Your task to perform on an android device: set default search engine in the chrome app Image 0: 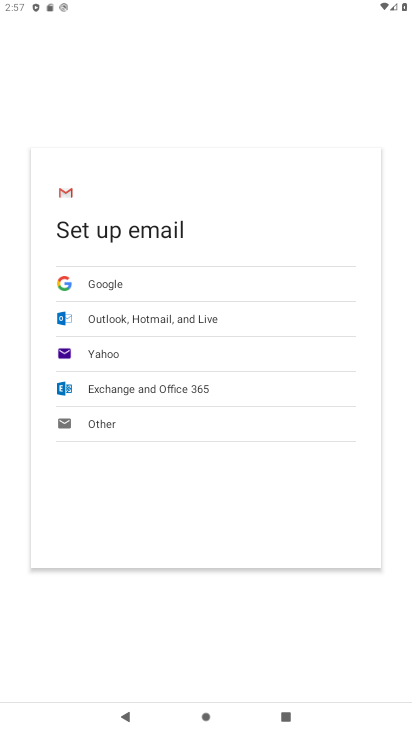
Step 0: press home button
Your task to perform on an android device: set default search engine in the chrome app Image 1: 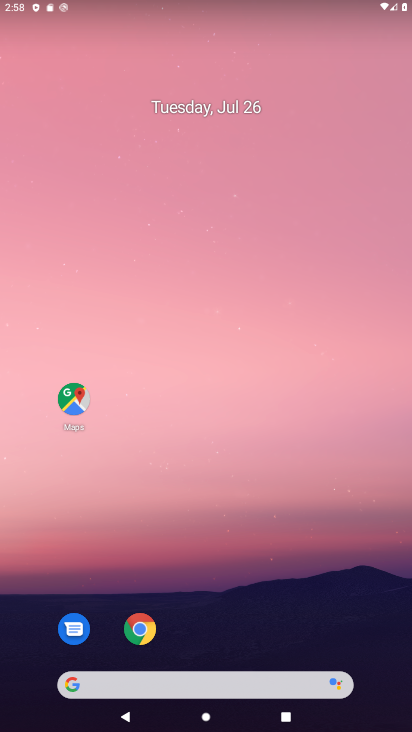
Step 1: drag from (236, 649) to (252, 31)
Your task to perform on an android device: set default search engine in the chrome app Image 2: 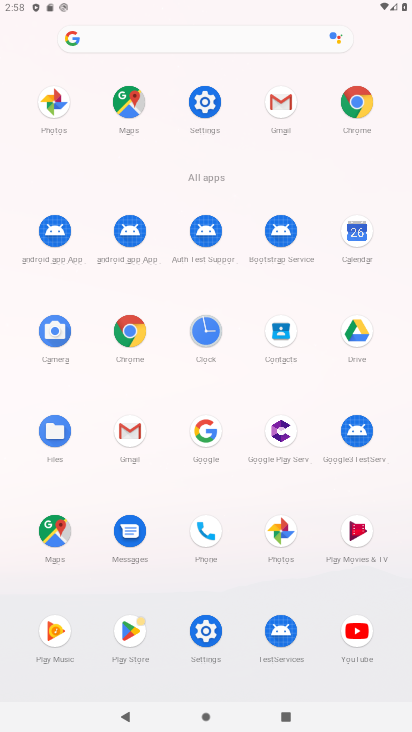
Step 2: click (129, 358)
Your task to perform on an android device: set default search engine in the chrome app Image 3: 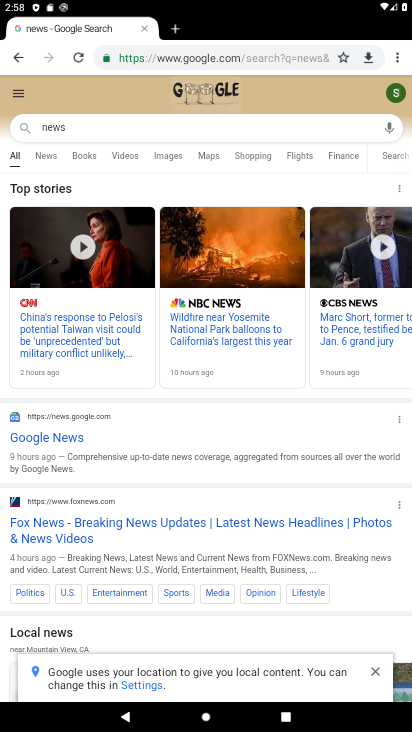
Step 3: drag from (396, 60) to (274, 349)
Your task to perform on an android device: set default search engine in the chrome app Image 4: 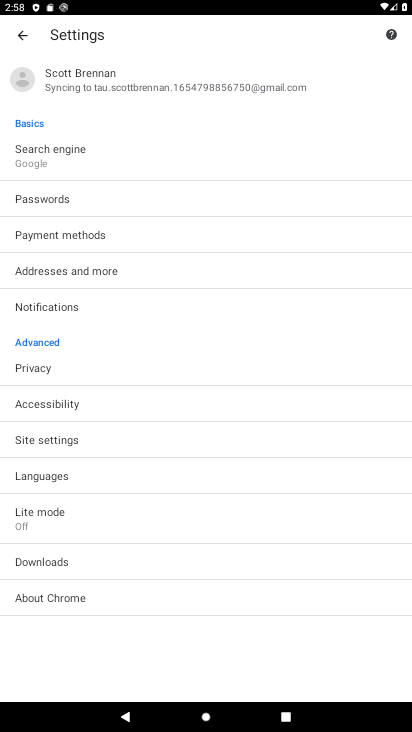
Step 4: click (63, 149)
Your task to perform on an android device: set default search engine in the chrome app Image 5: 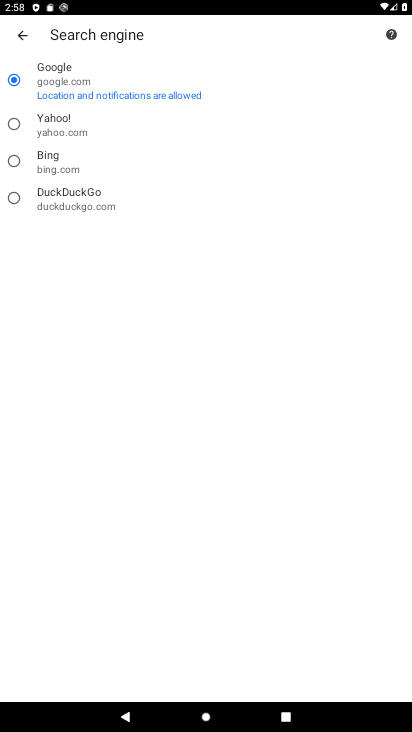
Step 5: click (50, 75)
Your task to perform on an android device: set default search engine in the chrome app Image 6: 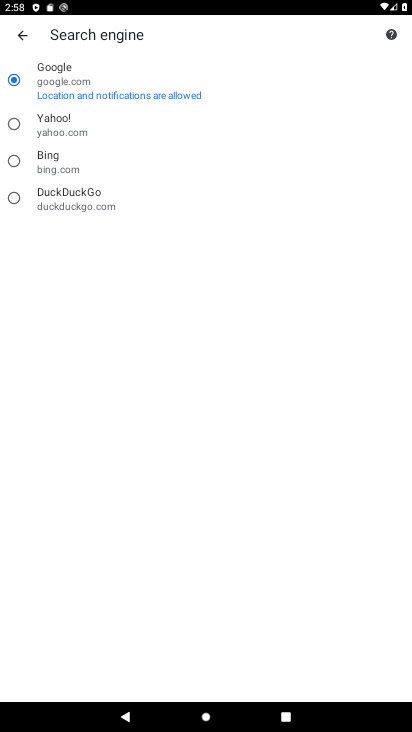
Step 6: task complete